Your task to perform on an android device: Search for seafood restaurants on Google Maps Image 0: 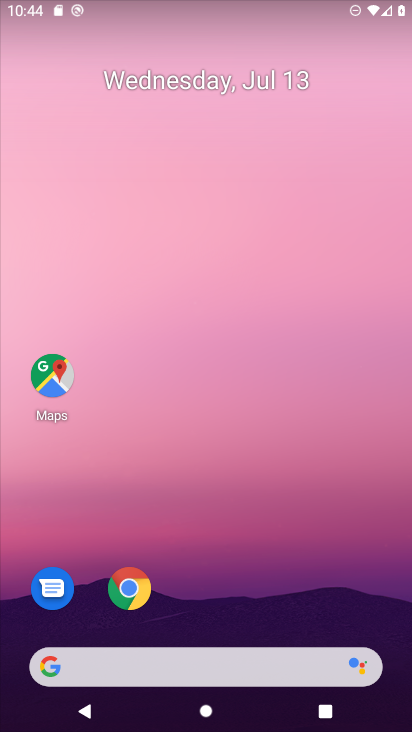
Step 0: drag from (191, 585) to (243, 220)
Your task to perform on an android device: Search for seafood restaurants on Google Maps Image 1: 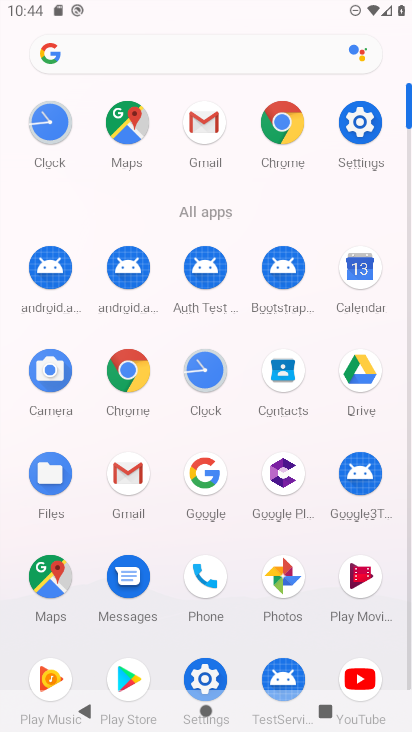
Step 1: click (41, 574)
Your task to perform on an android device: Search for seafood restaurants on Google Maps Image 2: 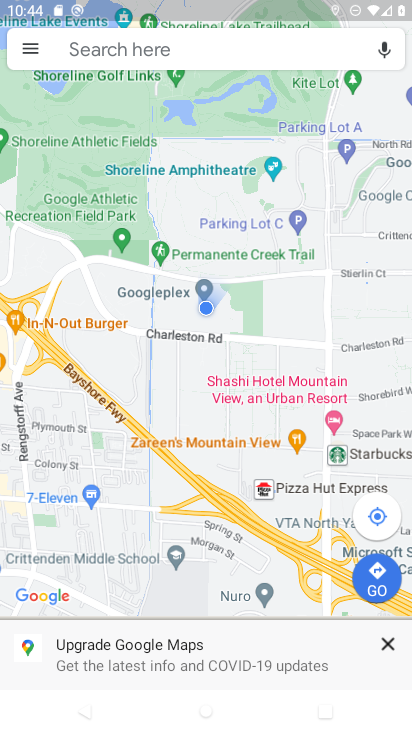
Step 2: click (220, 55)
Your task to perform on an android device: Search for seafood restaurants on Google Maps Image 3: 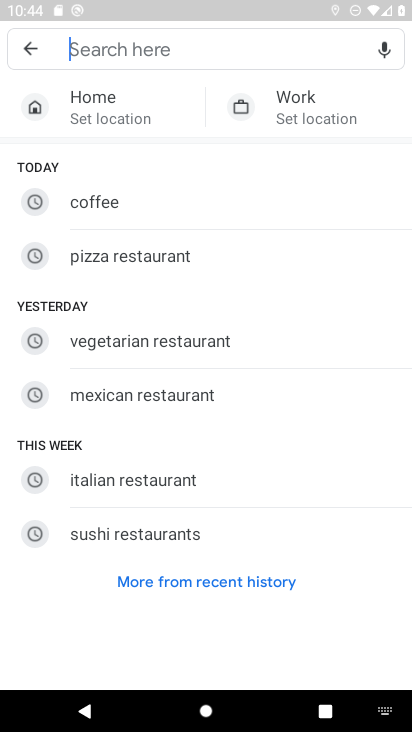
Step 3: type "seafood restaurants"
Your task to perform on an android device: Search for seafood restaurants on Google Maps Image 4: 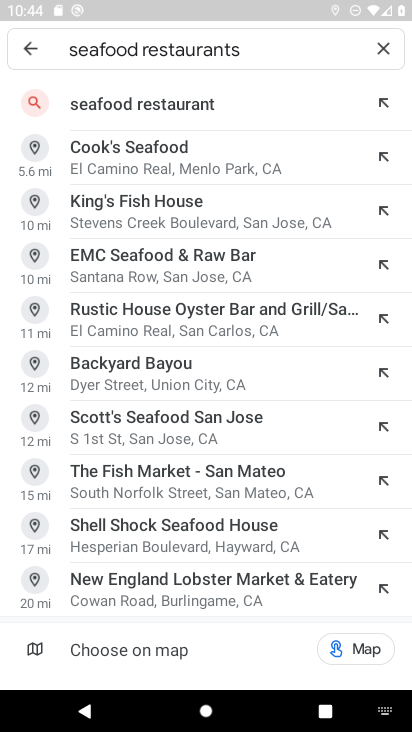
Step 4: click (210, 97)
Your task to perform on an android device: Search for seafood restaurants on Google Maps Image 5: 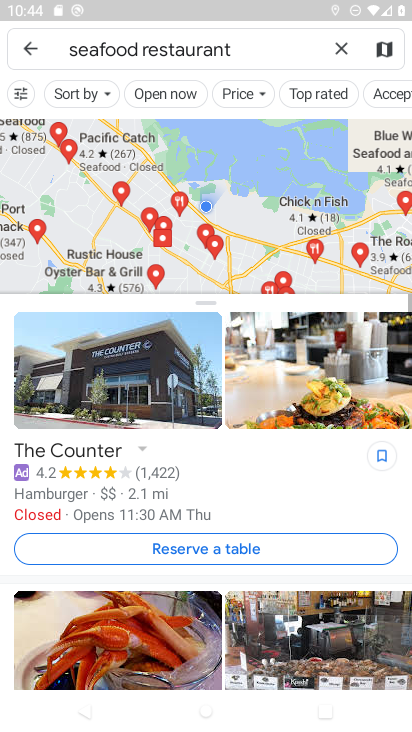
Step 5: task complete